Your task to perform on an android device: Open Amazon Image 0: 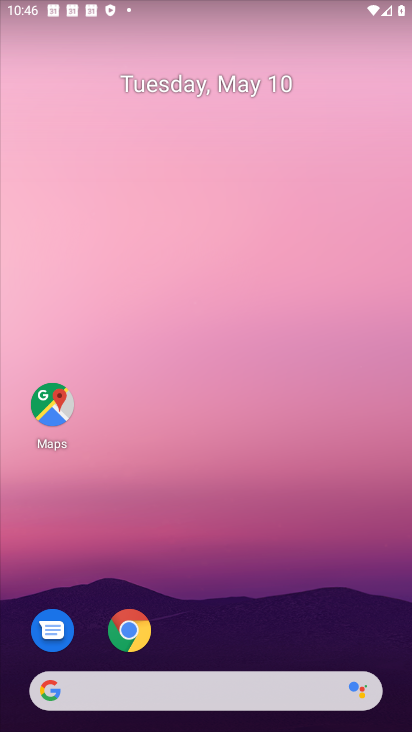
Step 0: click (242, 689)
Your task to perform on an android device: Open Amazon Image 1: 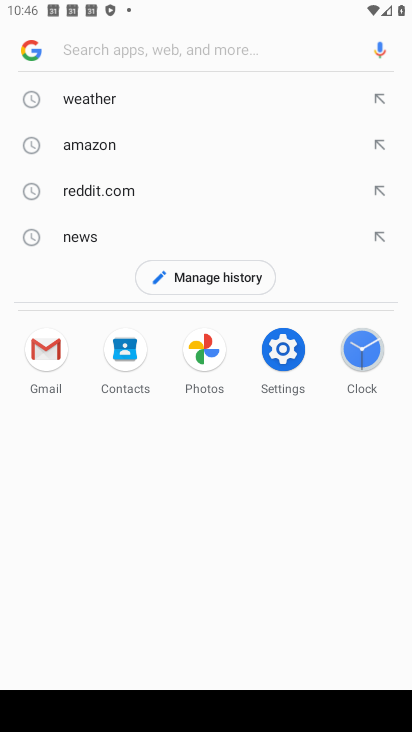
Step 1: click (124, 147)
Your task to perform on an android device: Open Amazon Image 2: 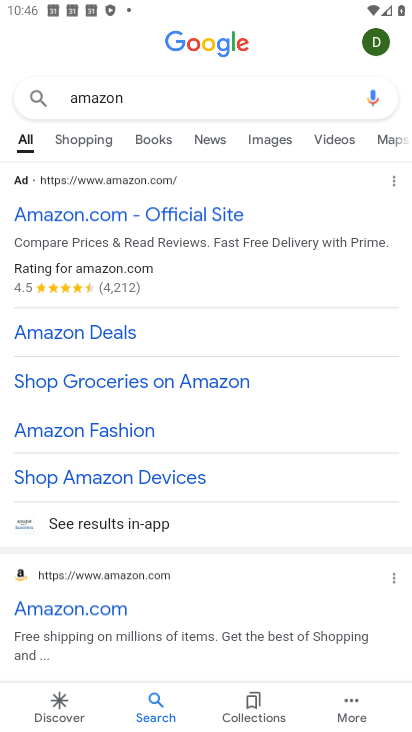
Step 2: click (173, 210)
Your task to perform on an android device: Open Amazon Image 3: 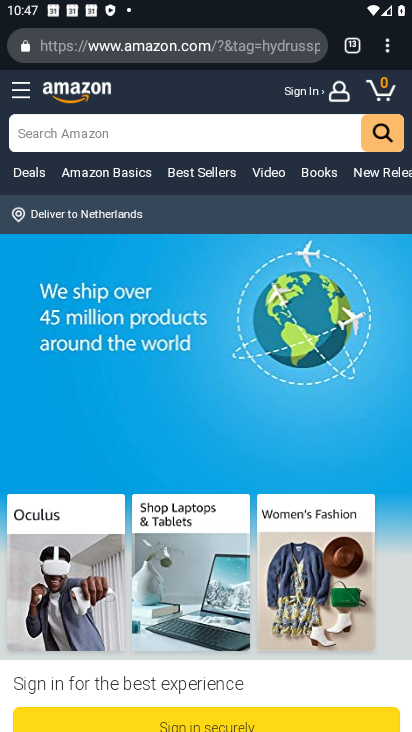
Step 3: task complete